Your task to perform on an android device: open app "Clock" (install if not already installed) Image 0: 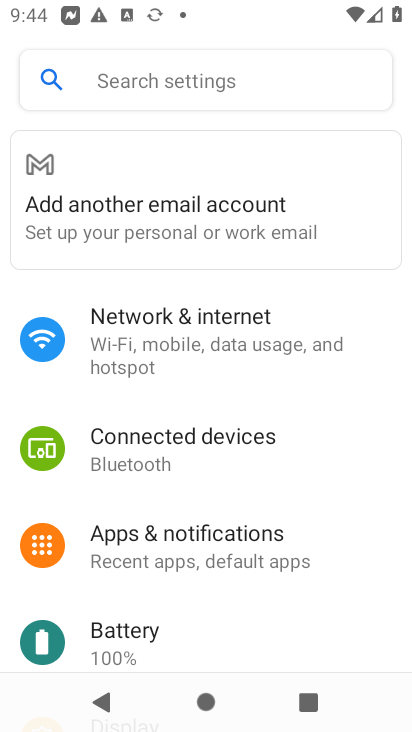
Step 0: press home button
Your task to perform on an android device: open app "Clock" (install if not already installed) Image 1: 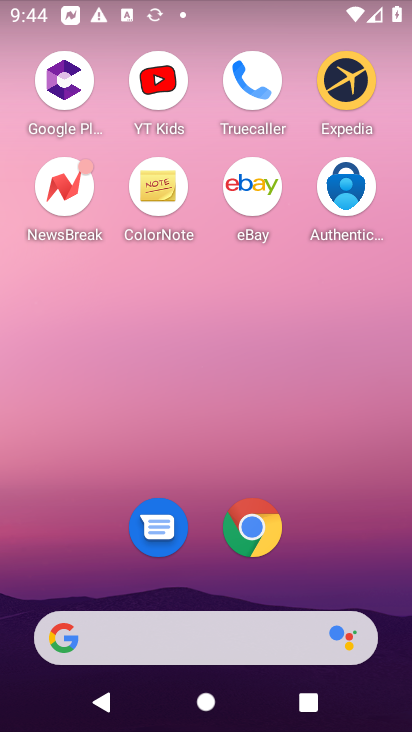
Step 1: drag from (180, 574) to (174, 114)
Your task to perform on an android device: open app "Clock" (install if not already installed) Image 2: 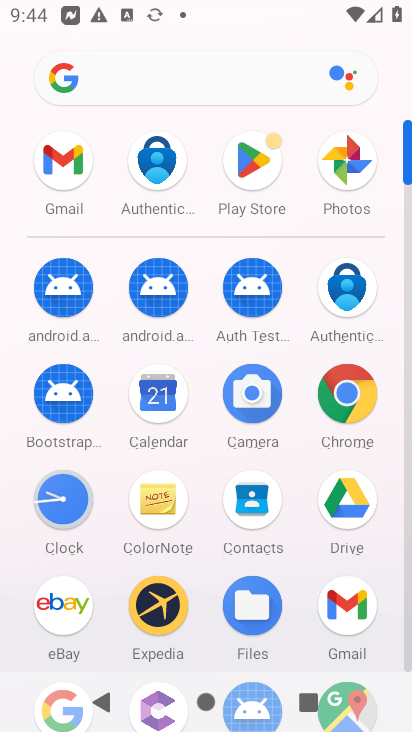
Step 2: click (252, 168)
Your task to perform on an android device: open app "Clock" (install if not already installed) Image 3: 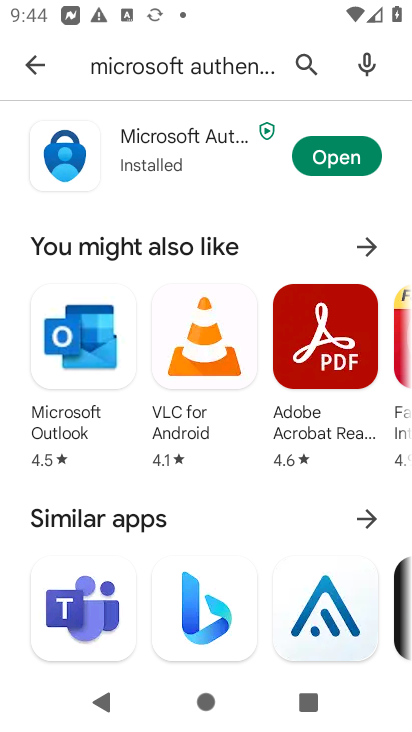
Step 3: click (183, 64)
Your task to perform on an android device: open app "Clock" (install if not already installed) Image 4: 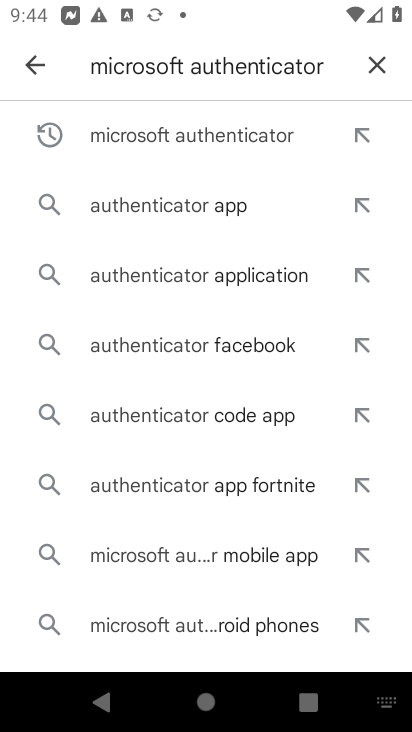
Step 4: click (375, 63)
Your task to perform on an android device: open app "Clock" (install if not already installed) Image 5: 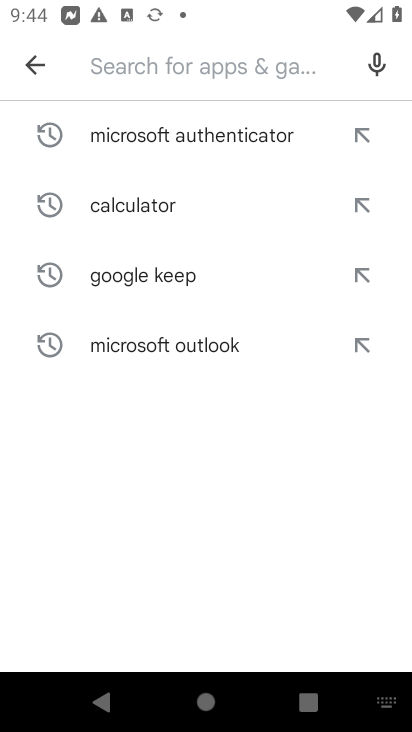
Step 5: type "clock"
Your task to perform on an android device: open app "Clock" (install if not already installed) Image 6: 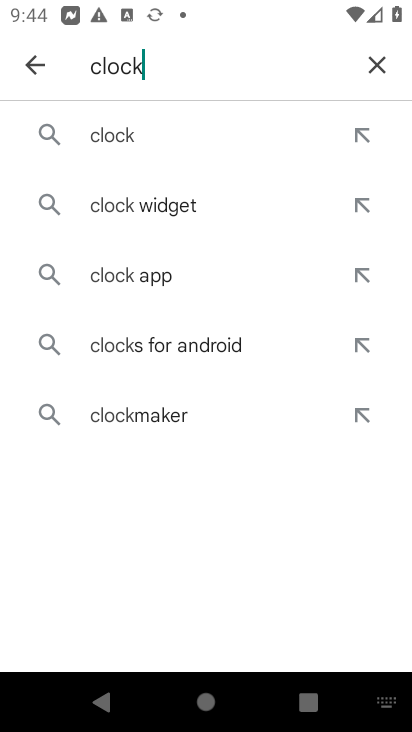
Step 6: click (145, 130)
Your task to perform on an android device: open app "Clock" (install if not already installed) Image 7: 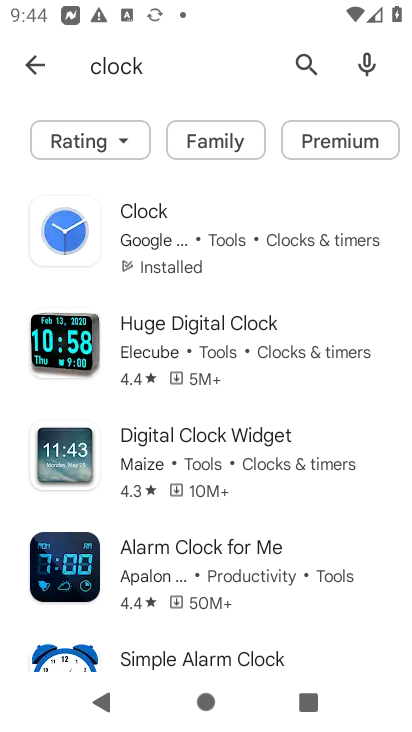
Step 7: click (215, 242)
Your task to perform on an android device: open app "Clock" (install if not already installed) Image 8: 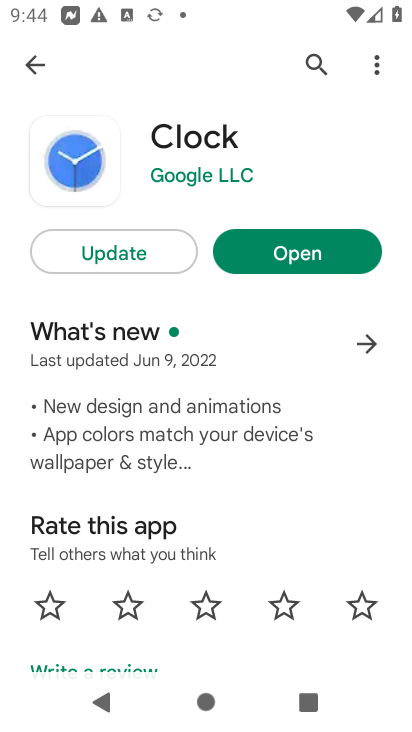
Step 8: click (286, 250)
Your task to perform on an android device: open app "Clock" (install if not already installed) Image 9: 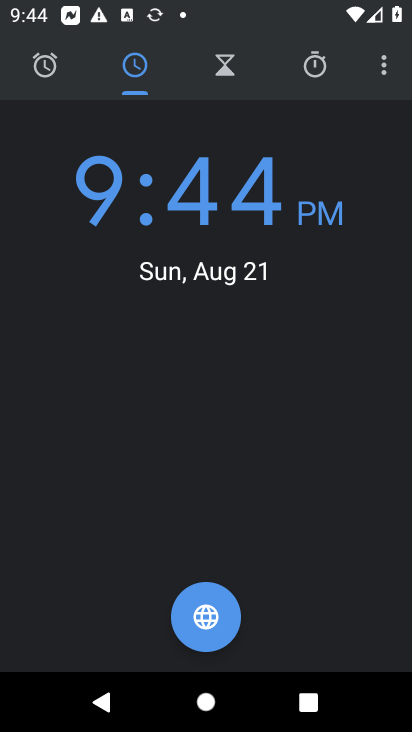
Step 9: task complete